Your task to perform on an android device: turn off airplane mode Image 0: 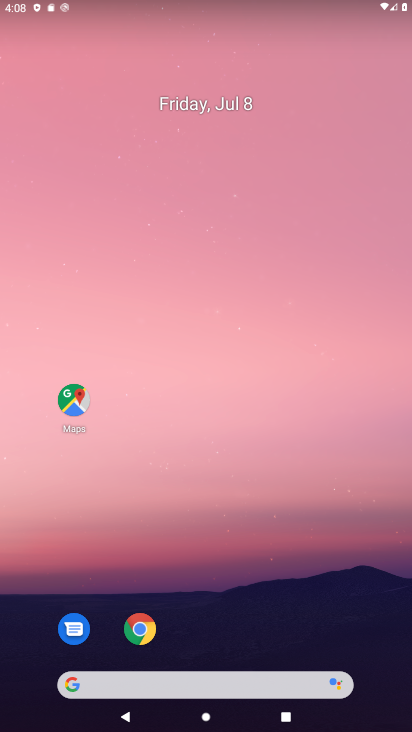
Step 0: drag from (227, 720) to (200, 159)
Your task to perform on an android device: turn off airplane mode Image 1: 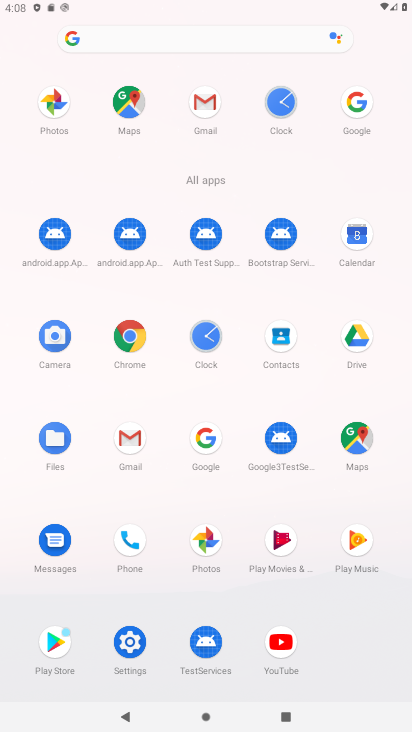
Step 1: click (126, 636)
Your task to perform on an android device: turn off airplane mode Image 2: 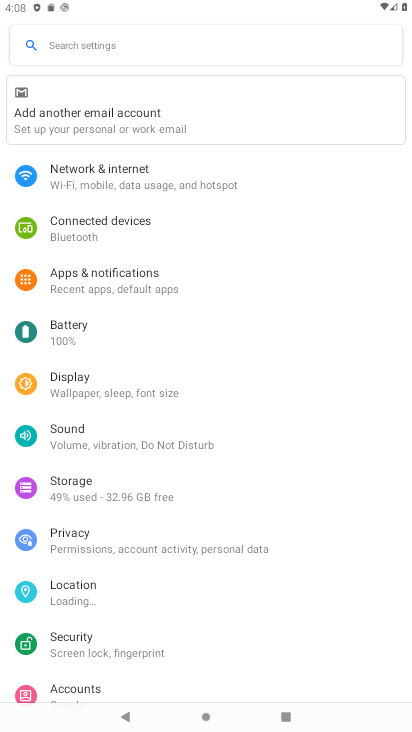
Step 2: click (109, 168)
Your task to perform on an android device: turn off airplane mode Image 3: 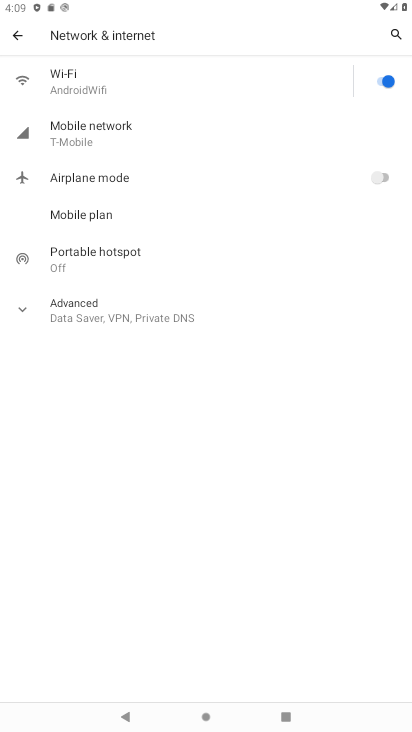
Step 3: task complete